Your task to perform on an android device: Open ESPN.com Image 0: 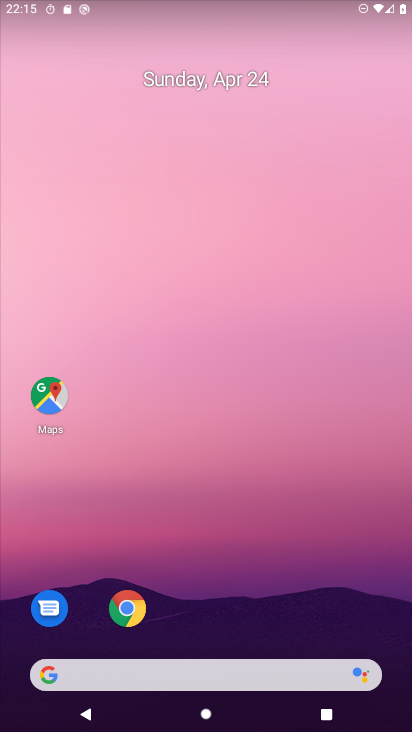
Step 0: click (278, 647)
Your task to perform on an android device: Open ESPN.com Image 1: 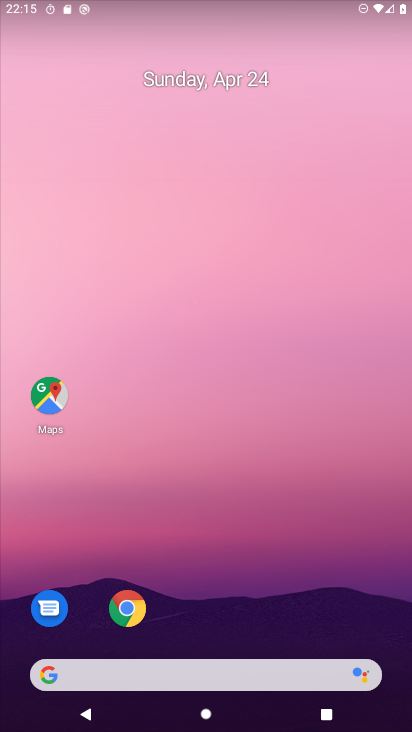
Step 1: click (278, 676)
Your task to perform on an android device: Open ESPN.com Image 2: 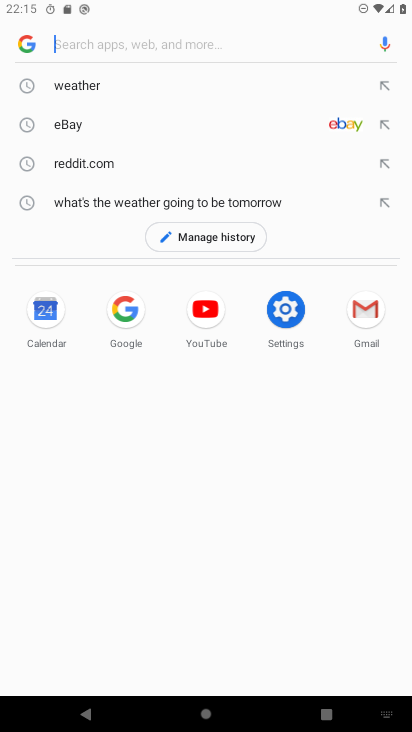
Step 2: type "espn.com"
Your task to perform on an android device: Open ESPN.com Image 3: 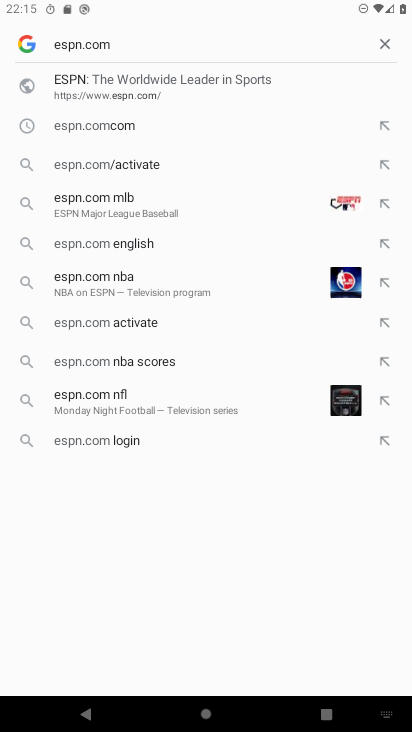
Step 3: click (188, 75)
Your task to perform on an android device: Open ESPN.com Image 4: 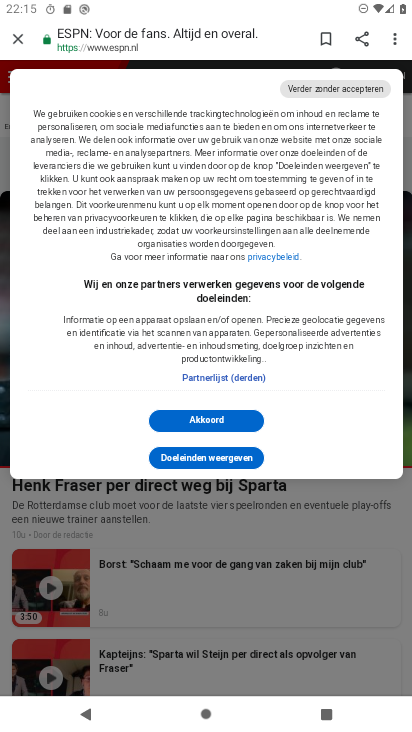
Step 4: task complete